Your task to perform on an android device: change the clock display to show seconds Image 0: 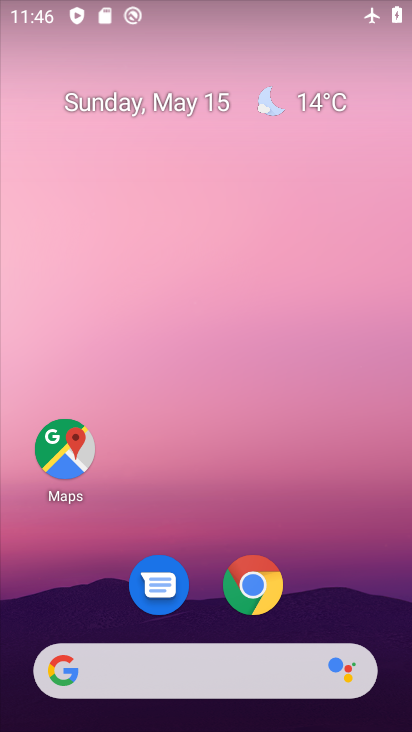
Step 0: drag from (222, 515) to (252, 12)
Your task to perform on an android device: change the clock display to show seconds Image 1: 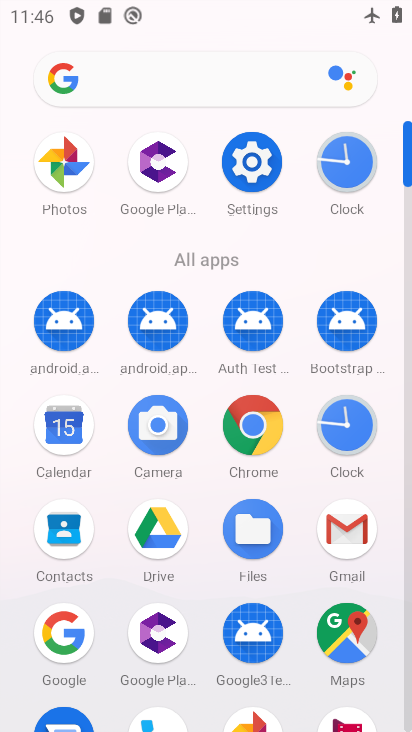
Step 1: click (343, 154)
Your task to perform on an android device: change the clock display to show seconds Image 2: 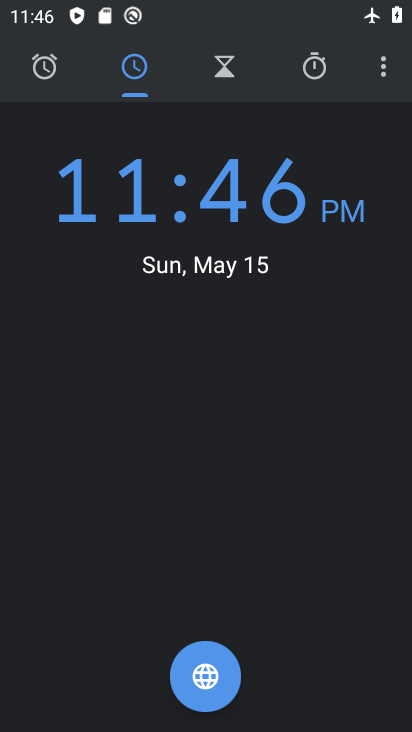
Step 2: click (389, 73)
Your task to perform on an android device: change the clock display to show seconds Image 3: 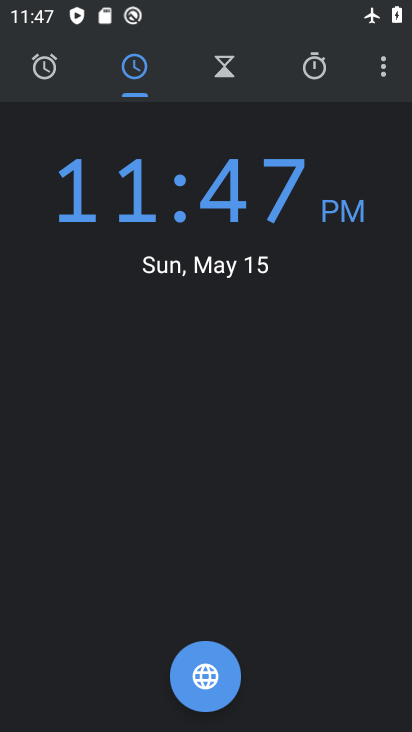
Step 3: click (378, 64)
Your task to perform on an android device: change the clock display to show seconds Image 4: 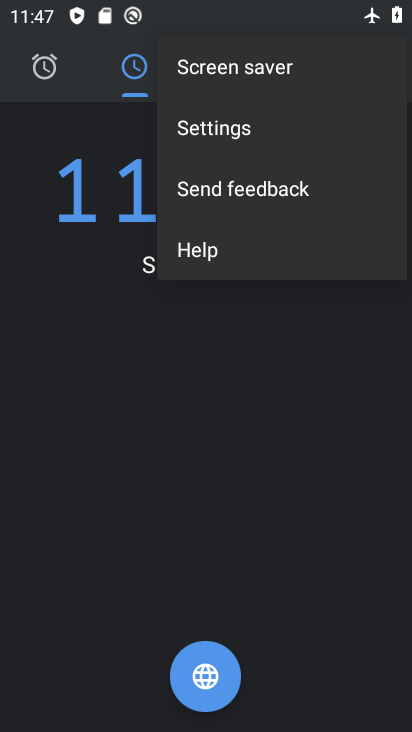
Step 4: click (281, 134)
Your task to perform on an android device: change the clock display to show seconds Image 5: 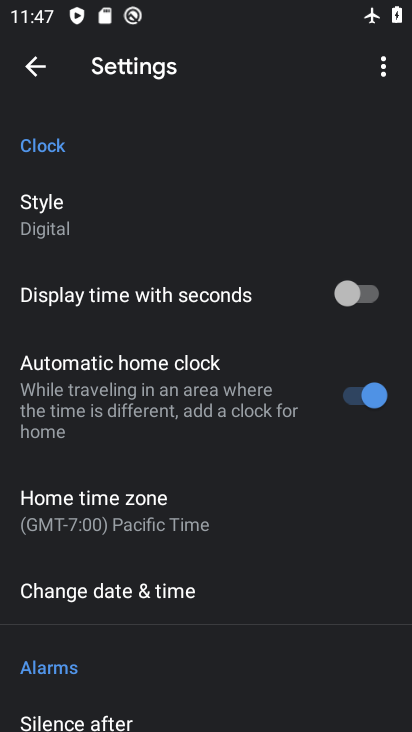
Step 5: click (366, 286)
Your task to perform on an android device: change the clock display to show seconds Image 6: 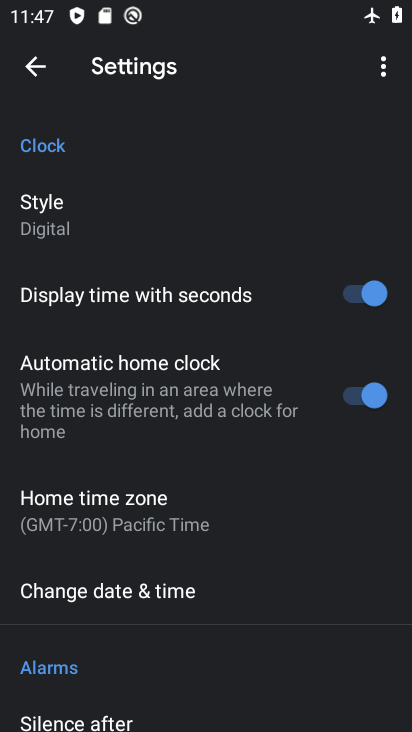
Step 6: click (33, 69)
Your task to perform on an android device: change the clock display to show seconds Image 7: 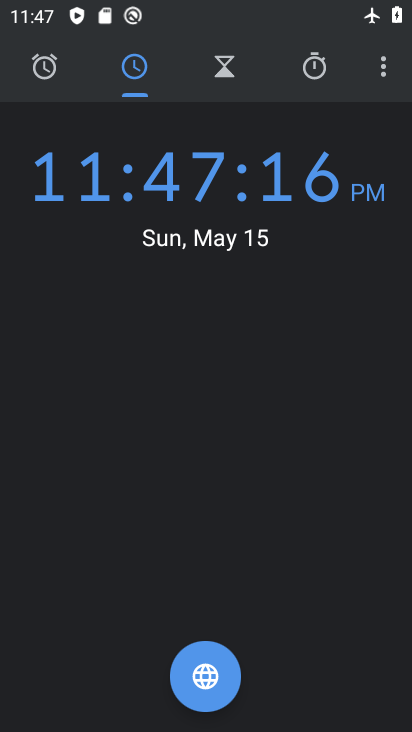
Step 7: task complete